Your task to perform on an android device: Open Wikipedia Image 0: 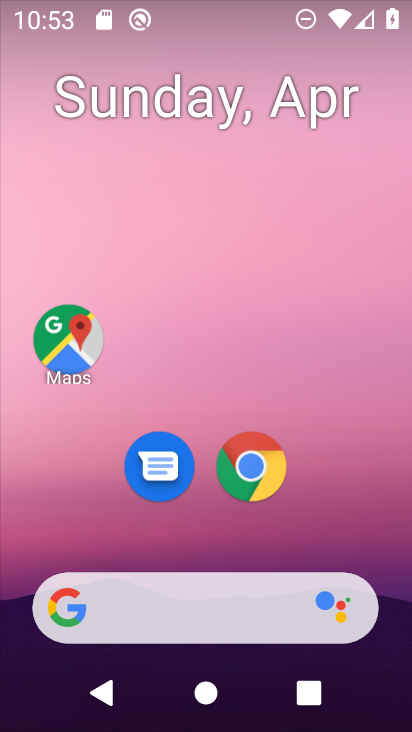
Step 0: drag from (335, 526) to (360, 139)
Your task to perform on an android device: Open Wikipedia Image 1: 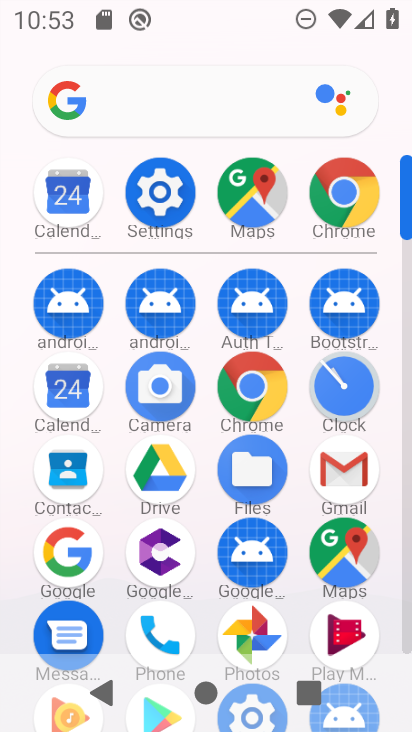
Step 1: click (354, 196)
Your task to perform on an android device: Open Wikipedia Image 2: 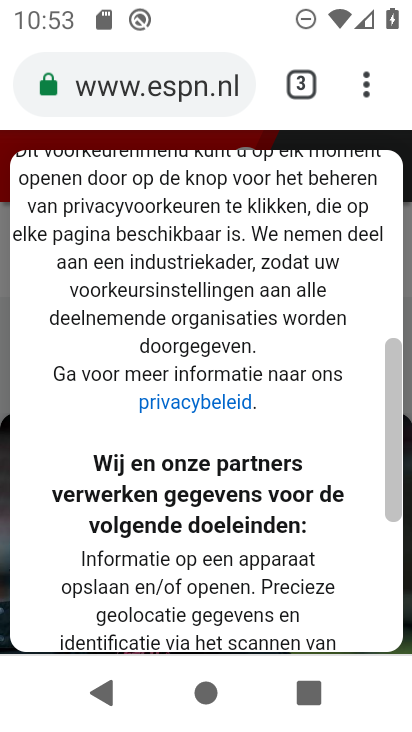
Step 2: click (151, 88)
Your task to perform on an android device: Open Wikipedia Image 3: 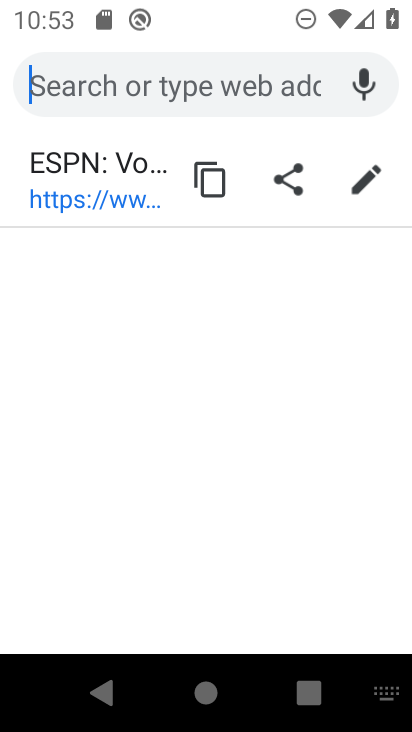
Step 3: click (198, 76)
Your task to perform on an android device: Open Wikipedia Image 4: 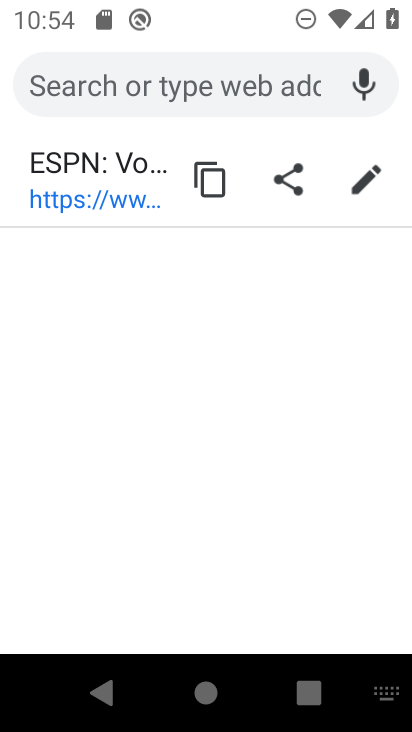
Step 4: type "wikipedia"
Your task to perform on an android device: Open Wikipedia Image 5: 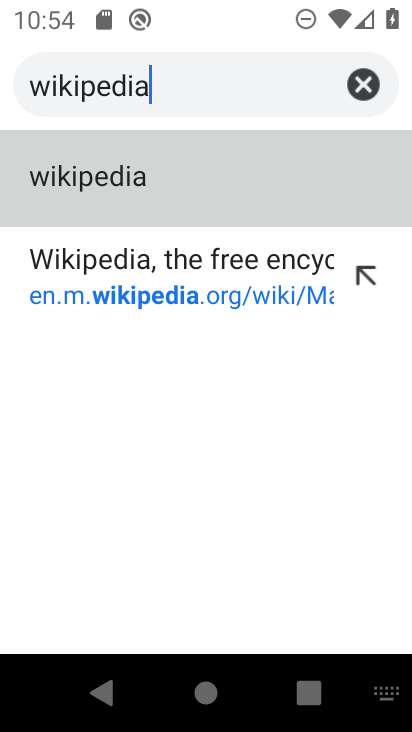
Step 5: click (211, 265)
Your task to perform on an android device: Open Wikipedia Image 6: 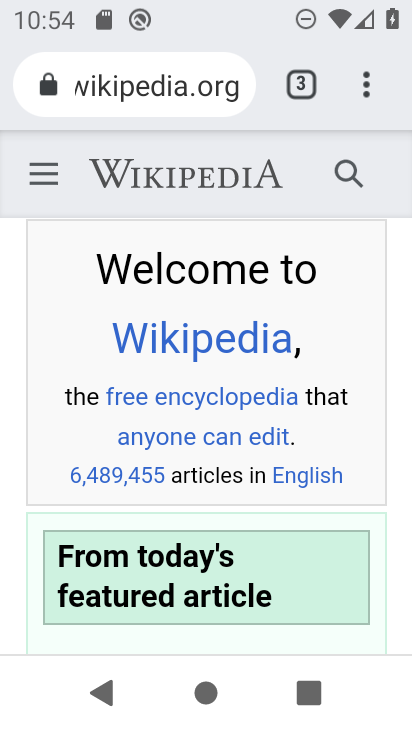
Step 6: task complete